Your task to perform on an android device: set the timer Image 0: 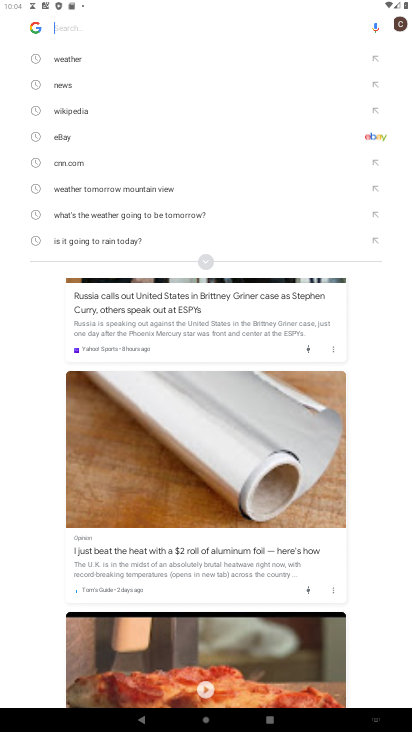
Step 0: press home button
Your task to perform on an android device: set the timer Image 1: 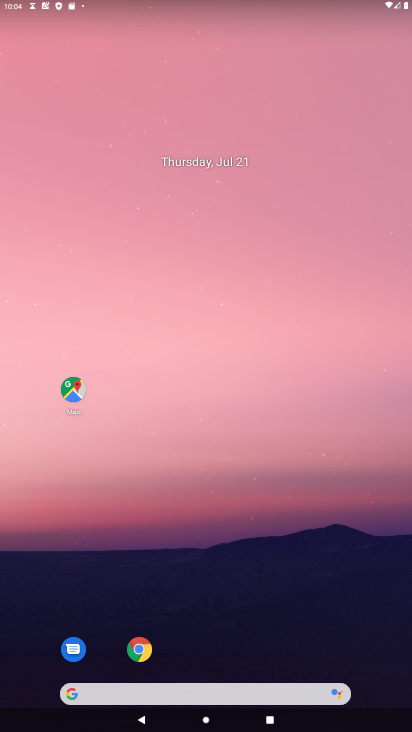
Step 1: click (328, 527)
Your task to perform on an android device: set the timer Image 2: 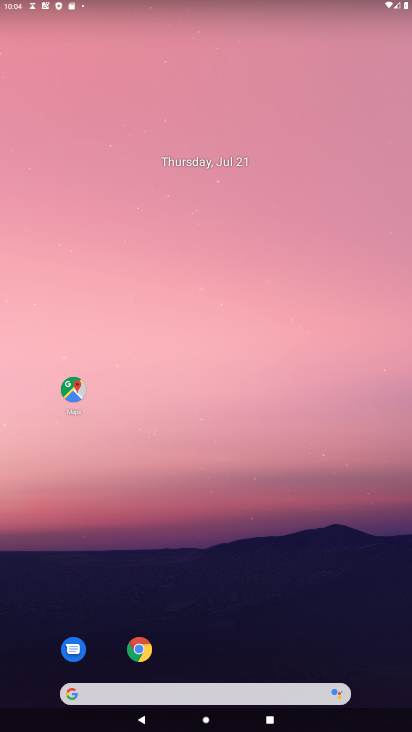
Step 2: drag from (330, 566) to (327, 279)
Your task to perform on an android device: set the timer Image 3: 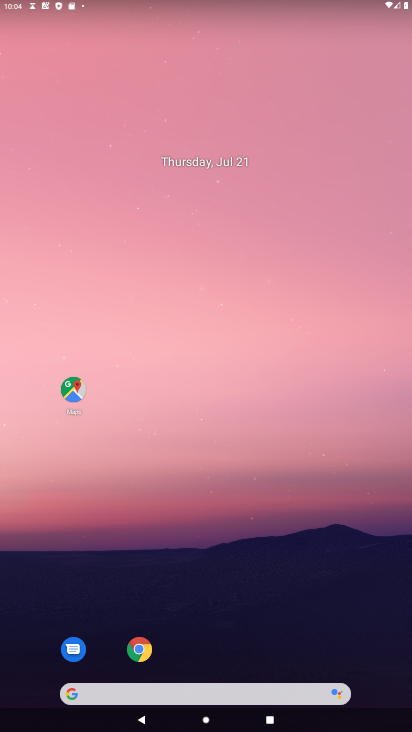
Step 3: drag from (333, 565) to (300, 214)
Your task to perform on an android device: set the timer Image 4: 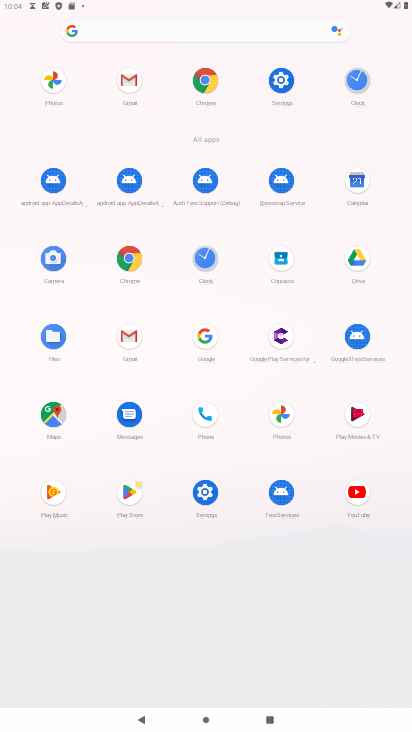
Step 4: click (206, 259)
Your task to perform on an android device: set the timer Image 5: 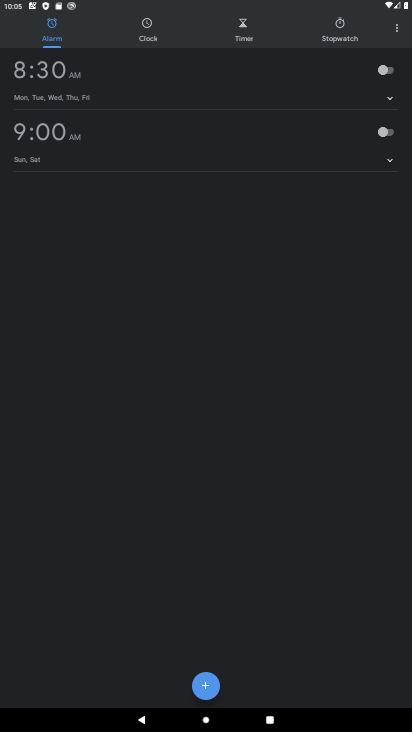
Step 5: click (247, 31)
Your task to perform on an android device: set the timer Image 6: 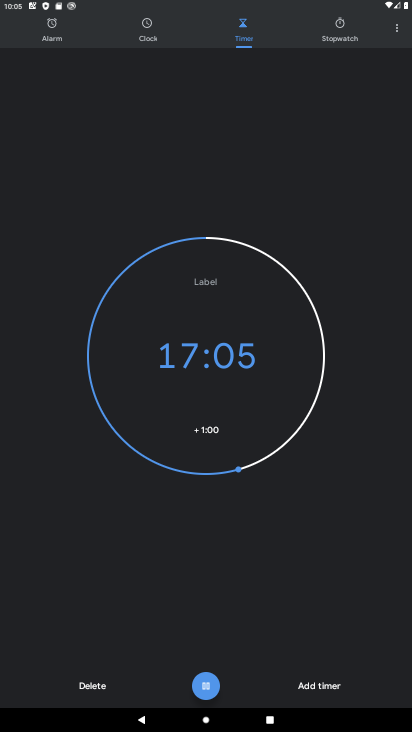
Step 6: task complete